Your task to perform on an android device: uninstall "Google Duo" Image 0: 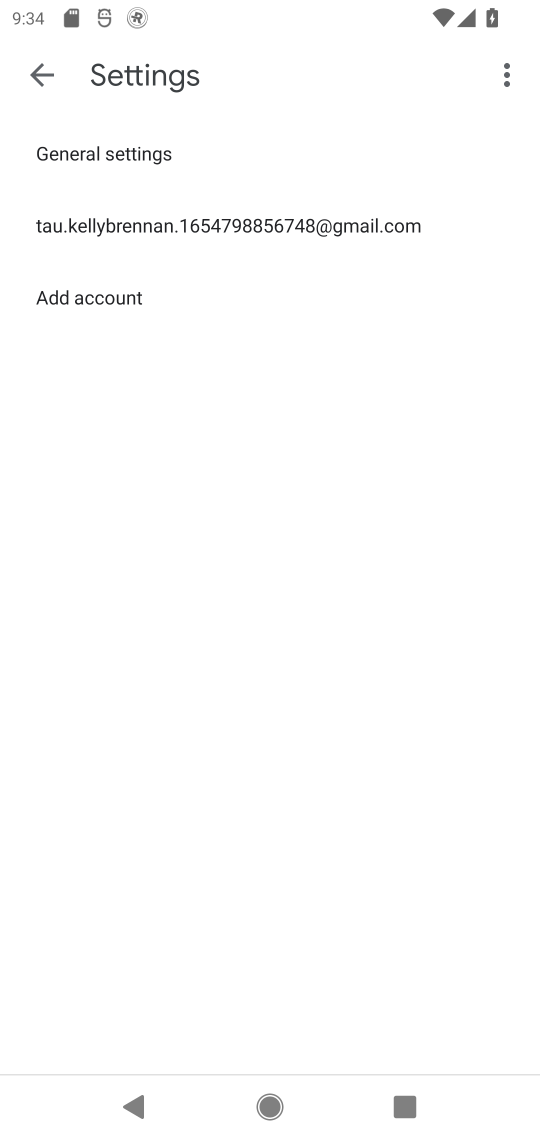
Step 0: press home button
Your task to perform on an android device: uninstall "Google Duo" Image 1: 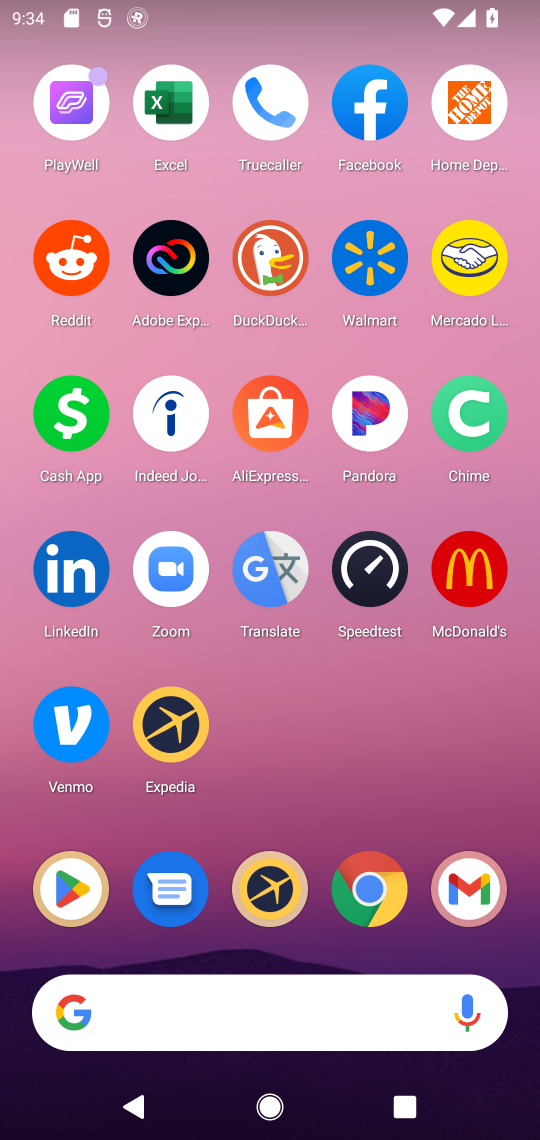
Step 1: press home button
Your task to perform on an android device: uninstall "Google Duo" Image 2: 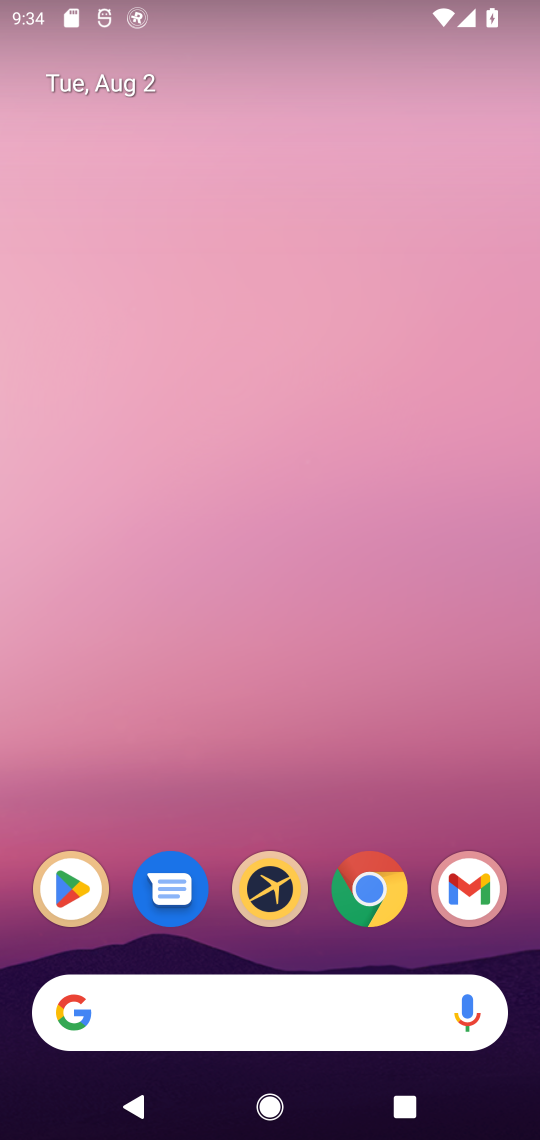
Step 2: click (64, 878)
Your task to perform on an android device: uninstall "Google Duo" Image 3: 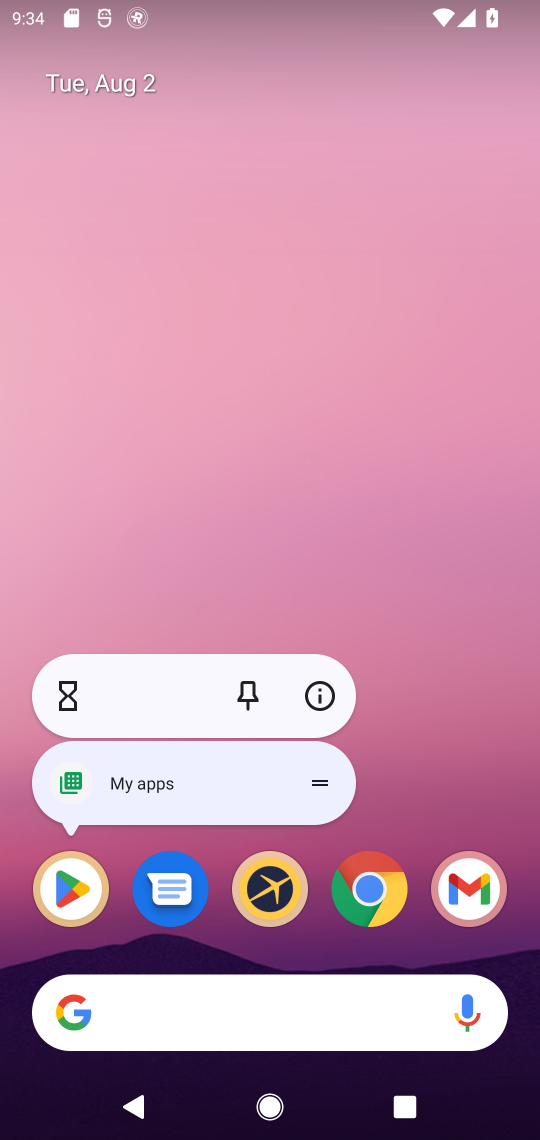
Step 3: click (73, 878)
Your task to perform on an android device: uninstall "Google Duo" Image 4: 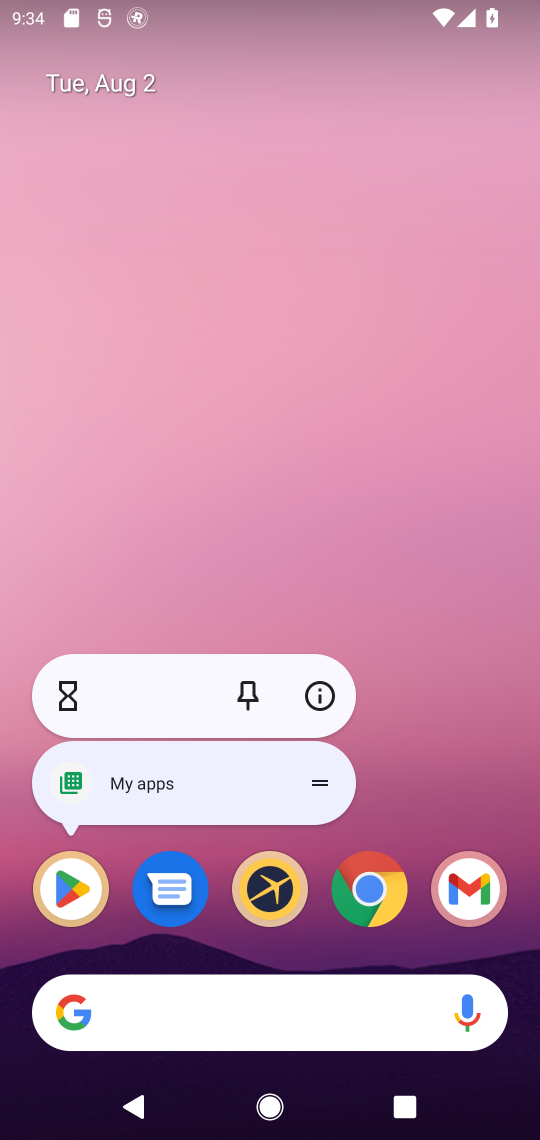
Step 4: click (76, 885)
Your task to perform on an android device: uninstall "Google Duo" Image 5: 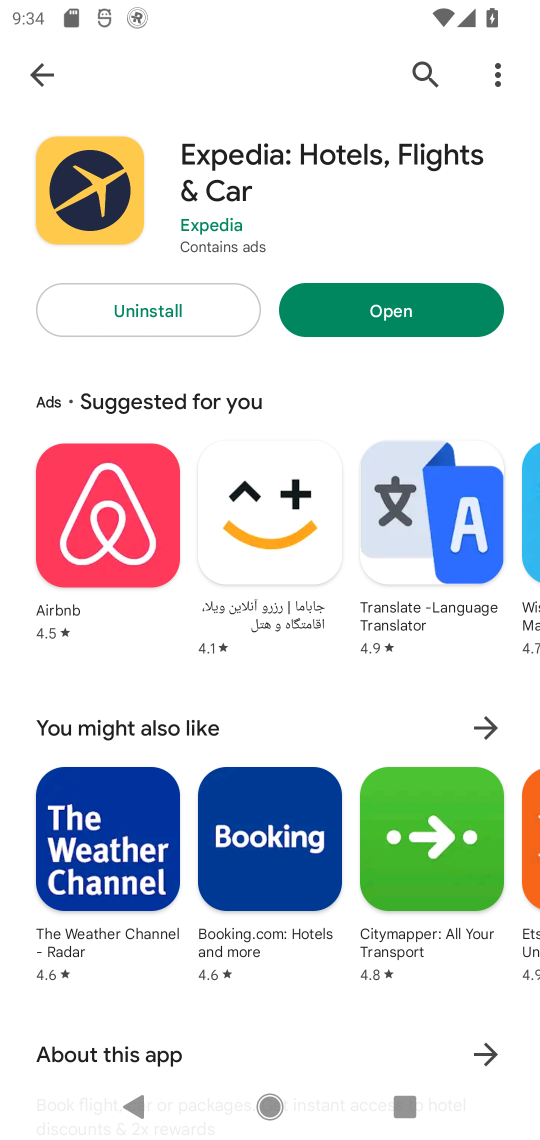
Step 5: click (425, 58)
Your task to perform on an android device: uninstall "Google Duo" Image 6: 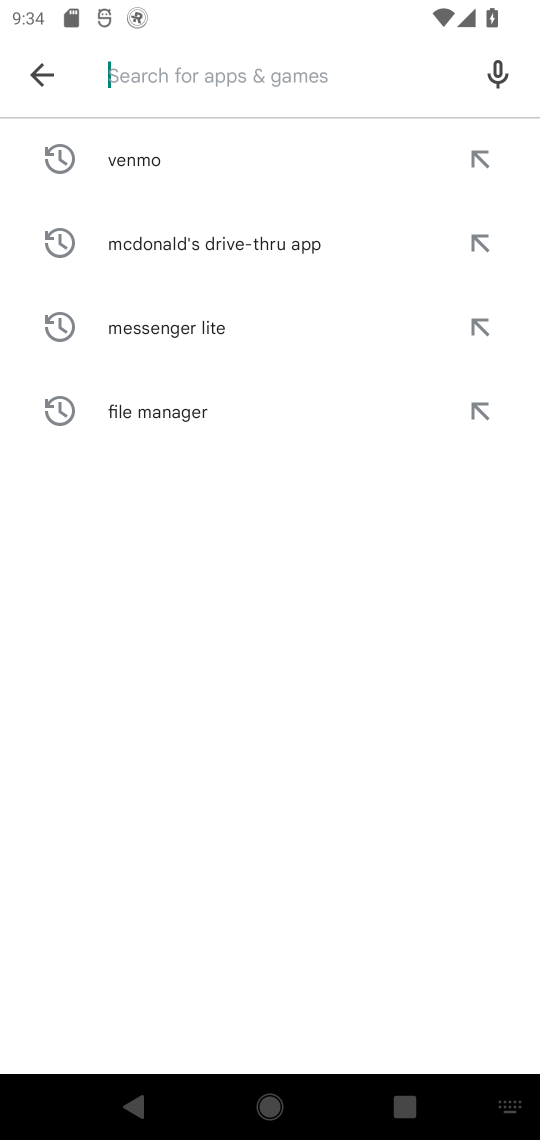
Step 6: type "Google Duo"
Your task to perform on an android device: uninstall "Google Duo" Image 7: 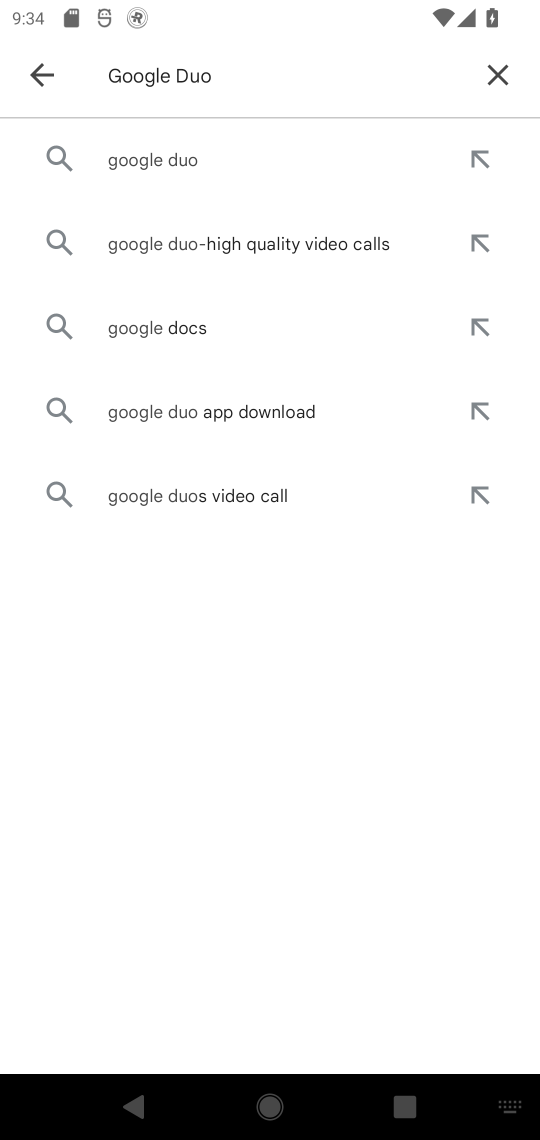
Step 7: click (182, 162)
Your task to perform on an android device: uninstall "Google Duo" Image 8: 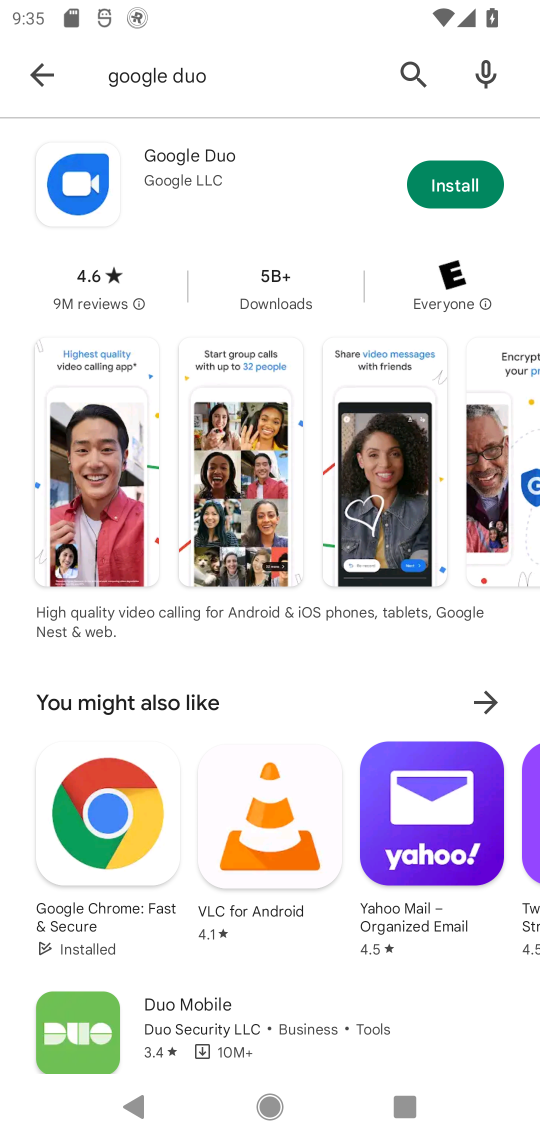
Step 8: task complete